Your task to perform on an android device: find photos in the google photos app Image 0: 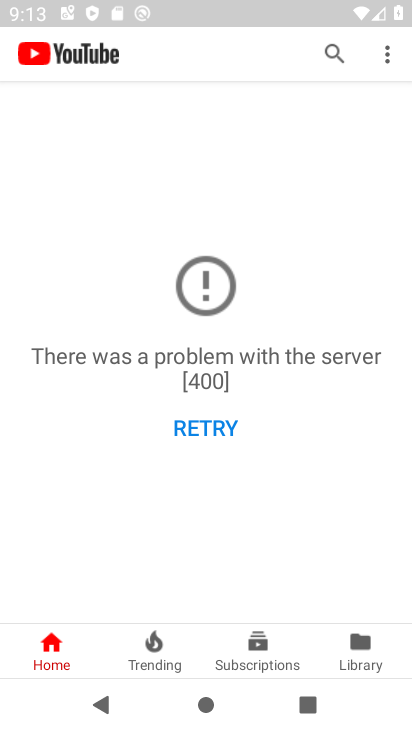
Step 0: press home button
Your task to perform on an android device: find photos in the google photos app Image 1: 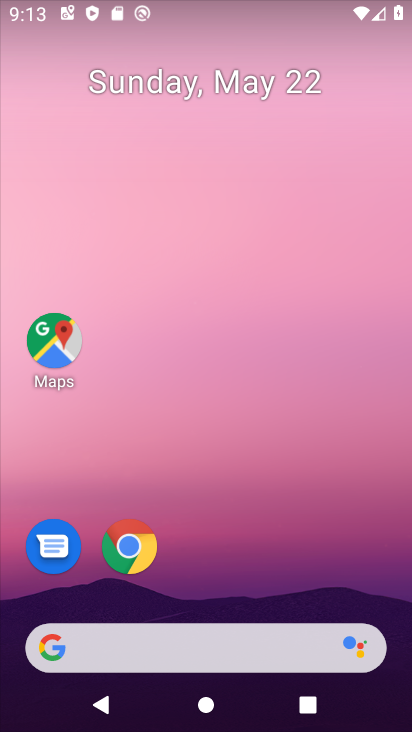
Step 1: drag from (198, 543) to (344, 26)
Your task to perform on an android device: find photos in the google photos app Image 2: 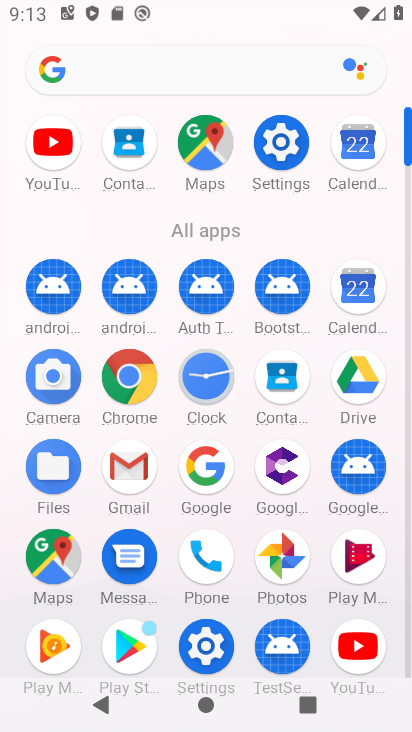
Step 2: click (296, 562)
Your task to perform on an android device: find photos in the google photos app Image 3: 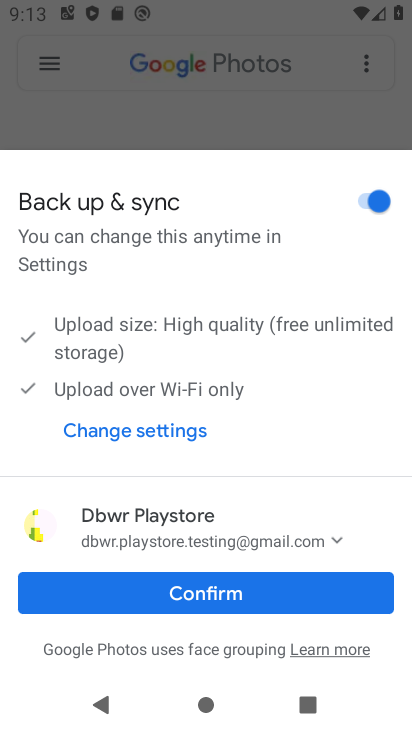
Step 3: click (248, 596)
Your task to perform on an android device: find photos in the google photos app Image 4: 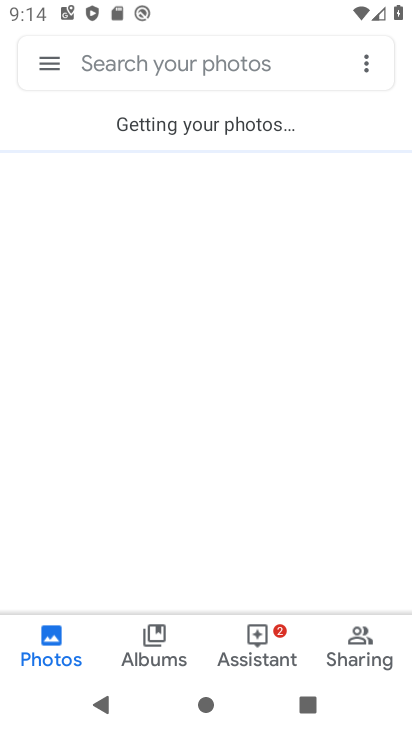
Step 4: task complete